Your task to perform on an android device: Go to privacy settings Image 0: 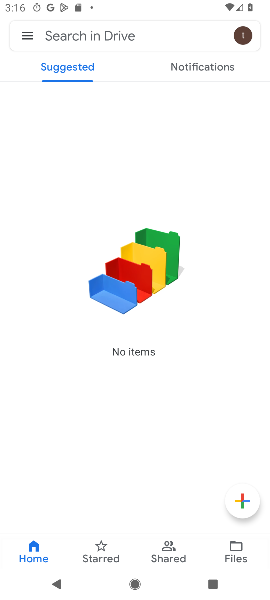
Step 0: press home button
Your task to perform on an android device: Go to privacy settings Image 1: 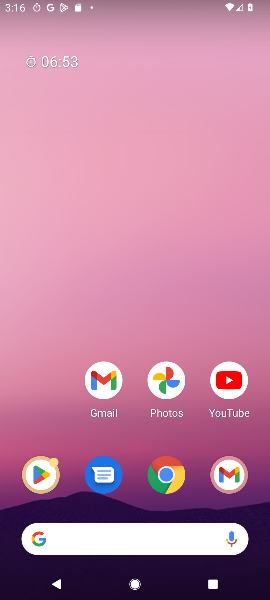
Step 1: drag from (64, 438) to (73, 204)
Your task to perform on an android device: Go to privacy settings Image 2: 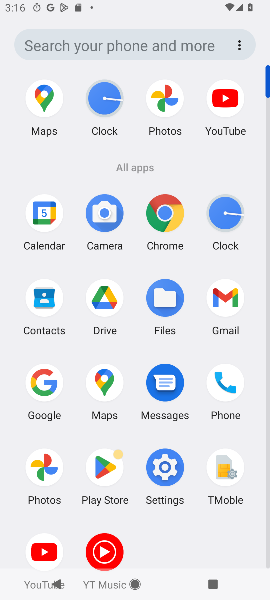
Step 2: click (169, 472)
Your task to perform on an android device: Go to privacy settings Image 3: 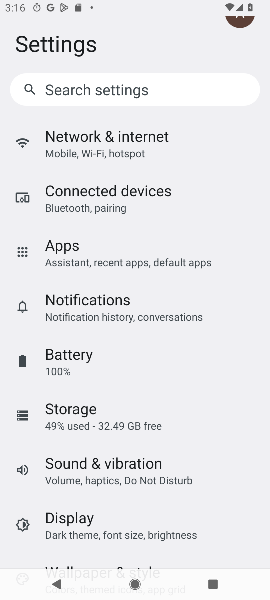
Step 3: drag from (212, 418) to (215, 322)
Your task to perform on an android device: Go to privacy settings Image 4: 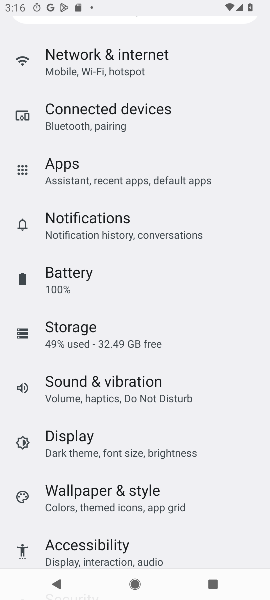
Step 4: drag from (222, 462) to (235, 348)
Your task to perform on an android device: Go to privacy settings Image 5: 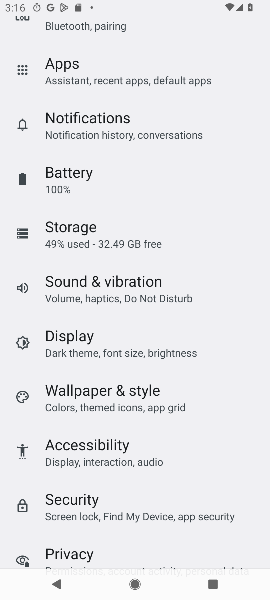
Step 5: drag from (224, 477) to (226, 359)
Your task to perform on an android device: Go to privacy settings Image 6: 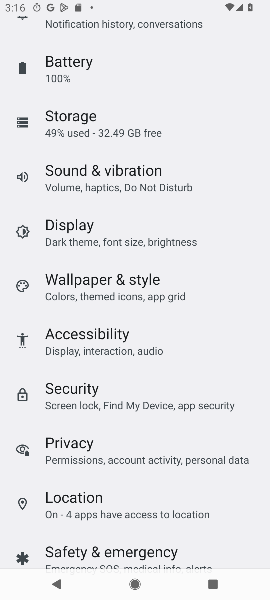
Step 6: drag from (229, 496) to (234, 390)
Your task to perform on an android device: Go to privacy settings Image 7: 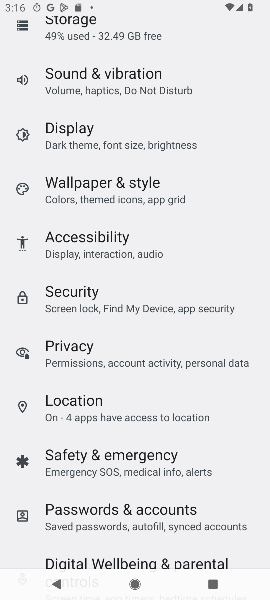
Step 7: drag from (238, 503) to (236, 384)
Your task to perform on an android device: Go to privacy settings Image 8: 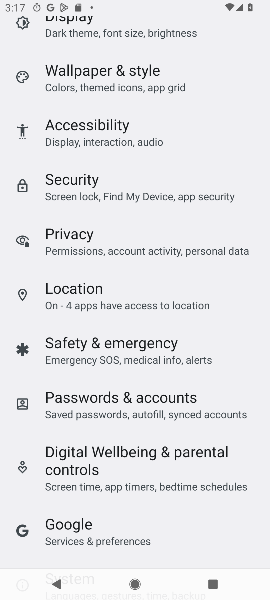
Step 8: drag from (222, 535) to (233, 365)
Your task to perform on an android device: Go to privacy settings Image 9: 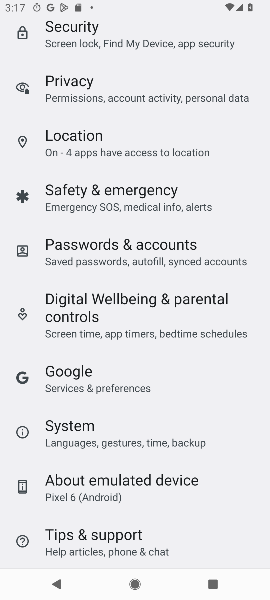
Step 9: drag from (237, 188) to (238, 279)
Your task to perform on an android device: Go to privacy settings Image 10: 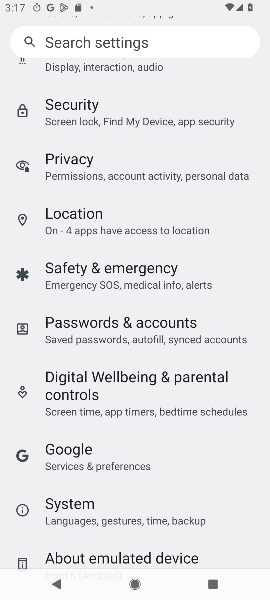
Step 10: drag from (233, 198) to (232, 336)
Your task to perform on an android device: Go to privacy settings Image 11: 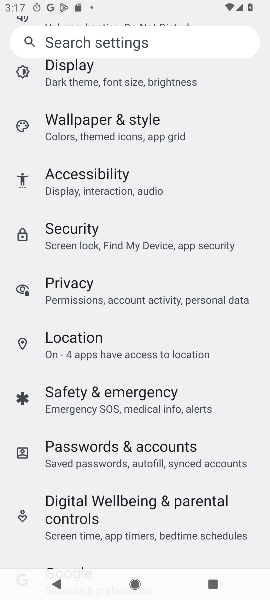
Step 11: click (217, 287)
Your task to perform on an android device: Go to privacy settings Image 12: 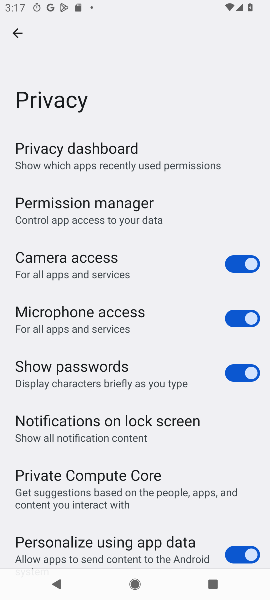
Step 12: task complete